Your task to perform on an android device: Search for a dining table on crateandbarrel.com Image 0: 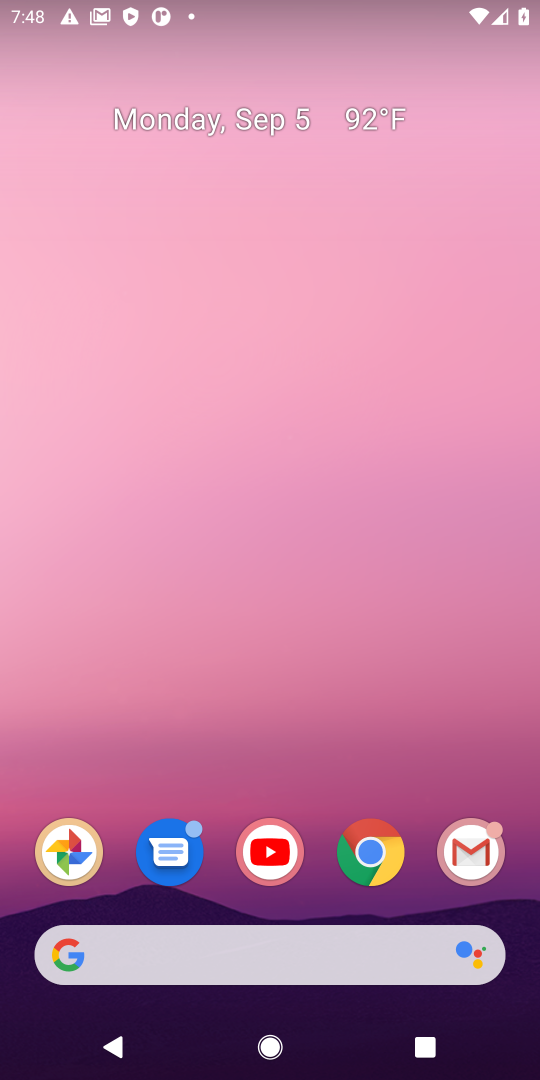
Step 0: click (380, 851)
Your task to perform on an android device: Search for a dining table on crateandbarrel.com Image 1: 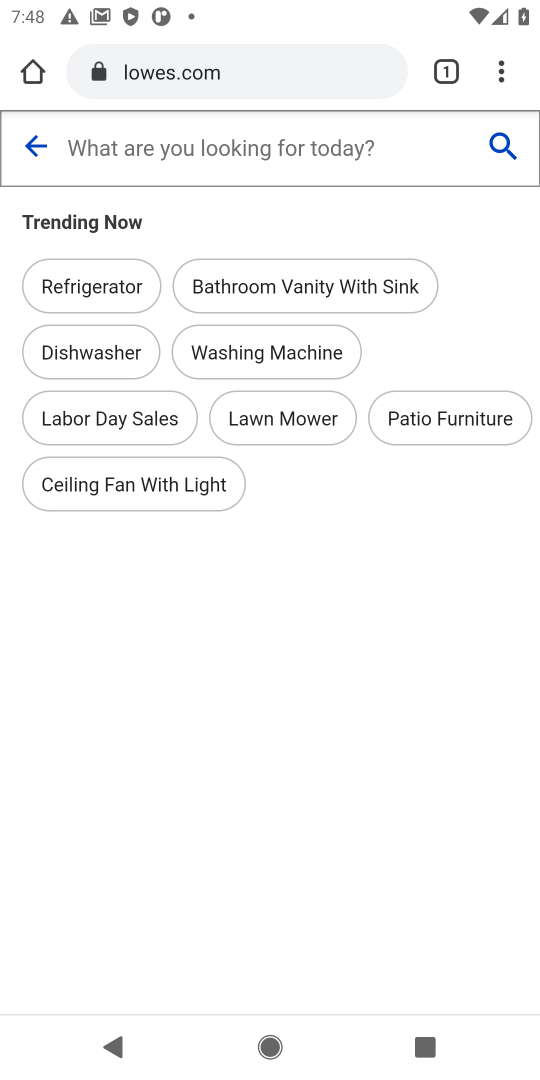
Step 1: click (213, 68)
Your task to perform on an android device: Search for a dining table on crateandbarrel.com Image 2: 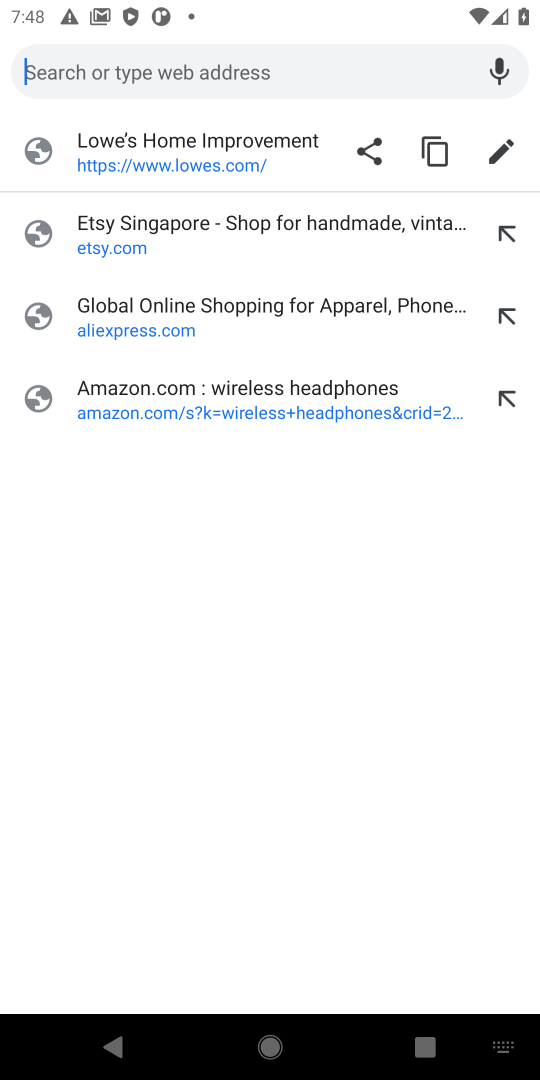
Step 2: type "crate and barrel"
Your task to perform on an android device: Search for a dining table on crateandbarrel.com Image 3: 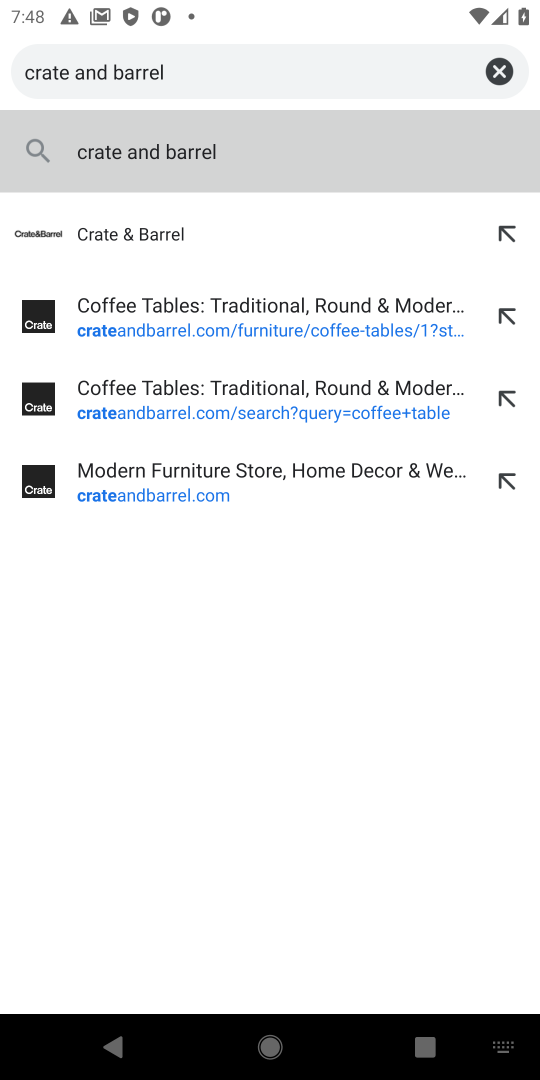
Step 3: press enter
Your task to perform on an android device: Search for a dining table on crateandbarrel.com Image 4: 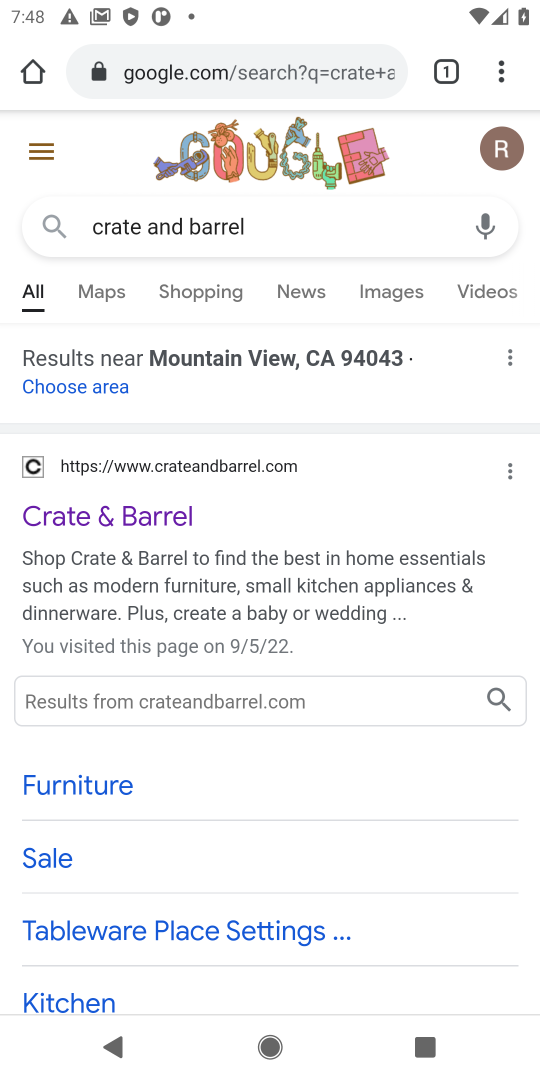
Step 4: click (147, 510)
Your task to perform on an android device: Search for a dining table on crateandbarrel.com Image 5: 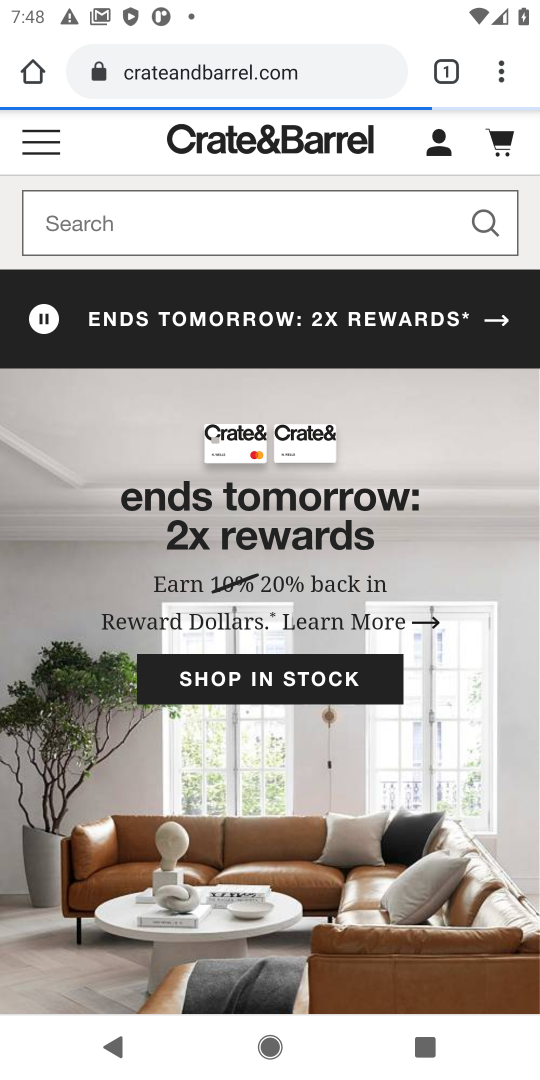
Step 5: click (267, 210)
Your task to perform on an android device: Search for a dining table on crateandbarrel.com Image 6: 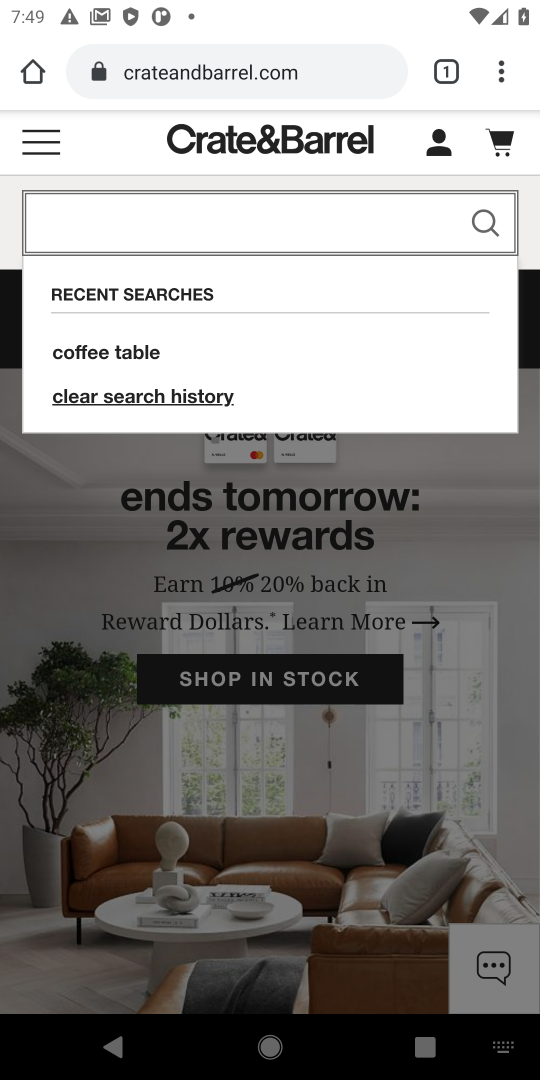
Step 6: type "dining table"
Your task to perform on an android device: Search for a dining table on crateandbarrel.com Image 7: 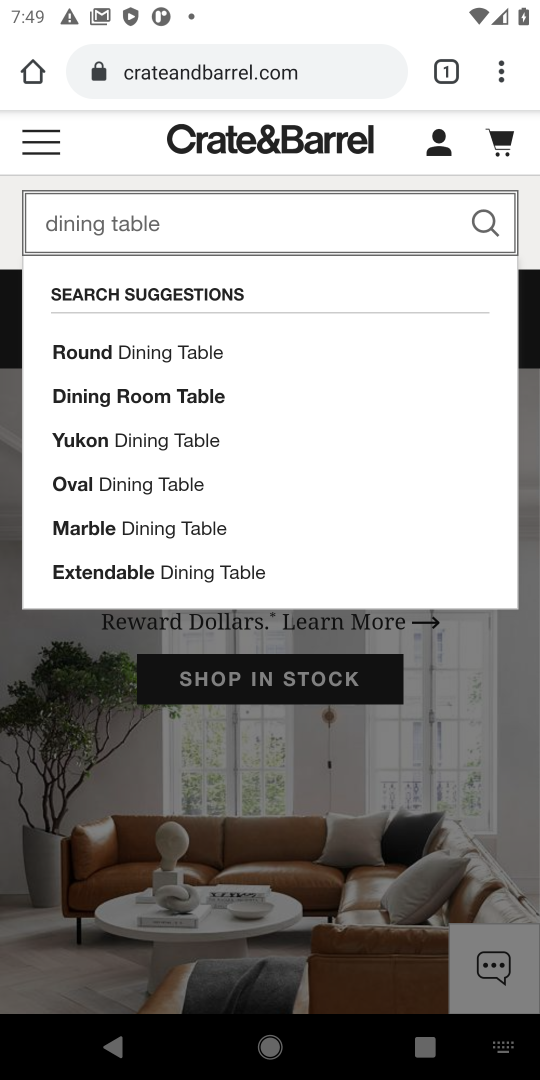
Step 7: press enter
Your task to perform on an android device: Search for a dining table on crateandbarrel.com Image 8: 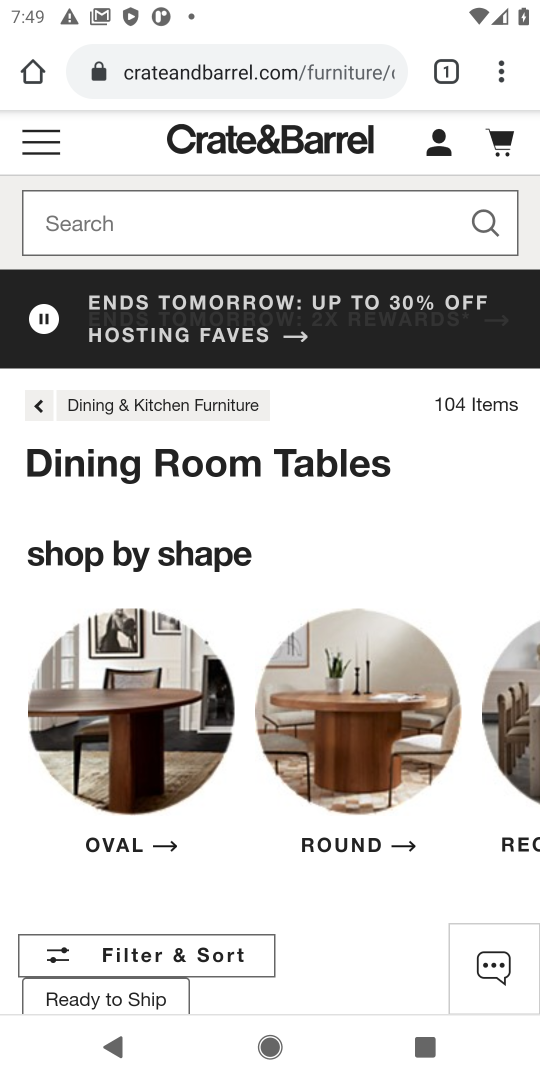
Step 8: task complete